Your task to perform on an android device: see tabs open on other devices in the chrome app Image 0: 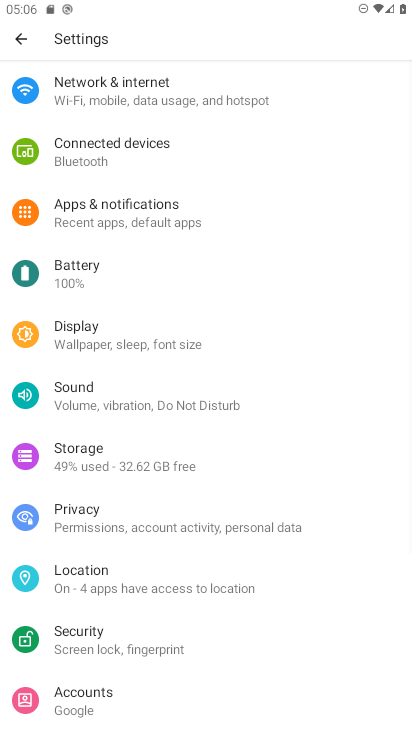
Step 0: press home button
Your task to perform on an android device: see tabs open on other devices in the chrome app Image 1: 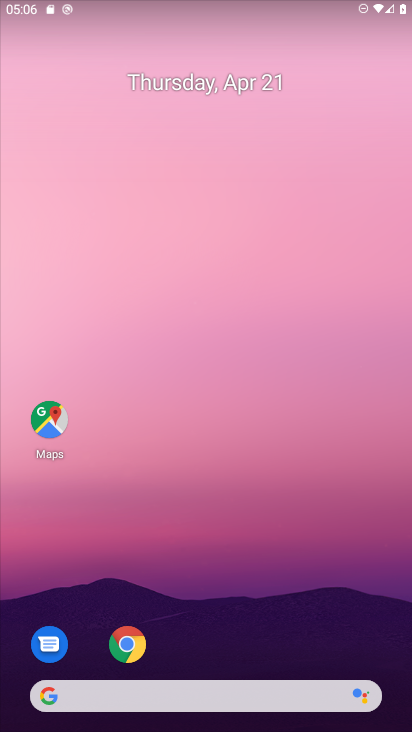
Step 1: drag from (274, 628) to (290, 133)
Your task to perform on an android device: see tabs open on other devices in the chrome app Image 2: 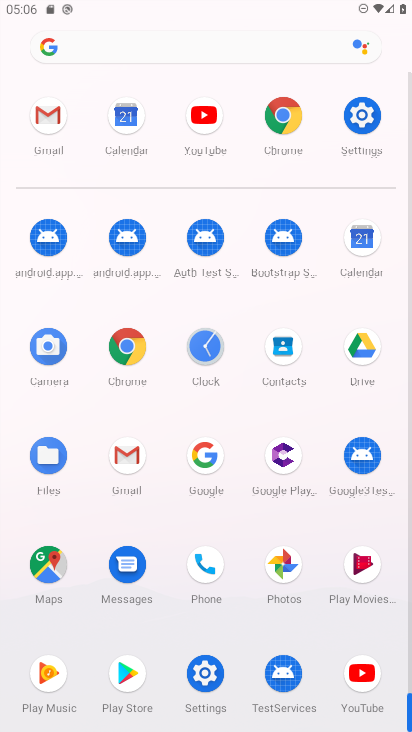
Step 2: click (125, 337)
Your task to perform on an android device: see tabs open on other devices in the chrome app Image 3: 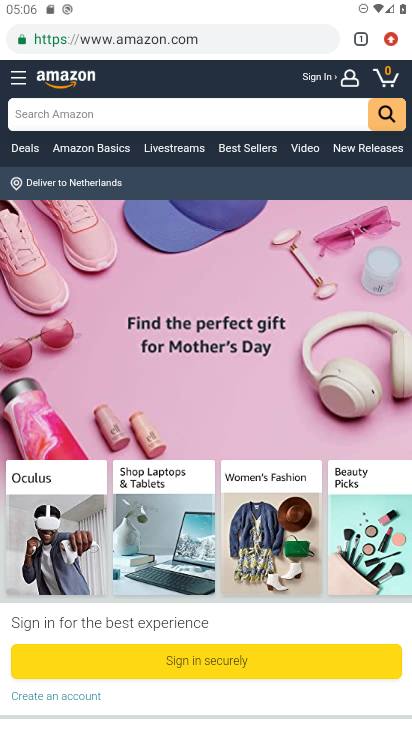
Step 3: click (224, 37)
Your task to perform on an android device: see tabs open on other devices in the chrome app Image 4: 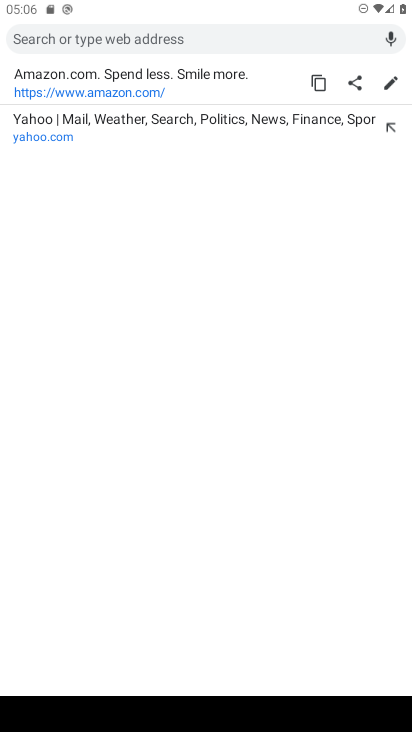
Step 4: task complete